Your task to perform on an android device: toggle data saver in the chrome app Image 0: 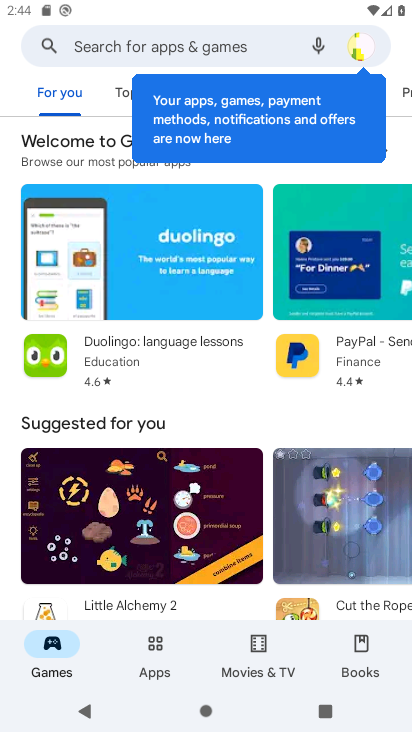
Step 0: press home button
Your task to perform on an android device: toggle data saver in the chrome app Image 1: 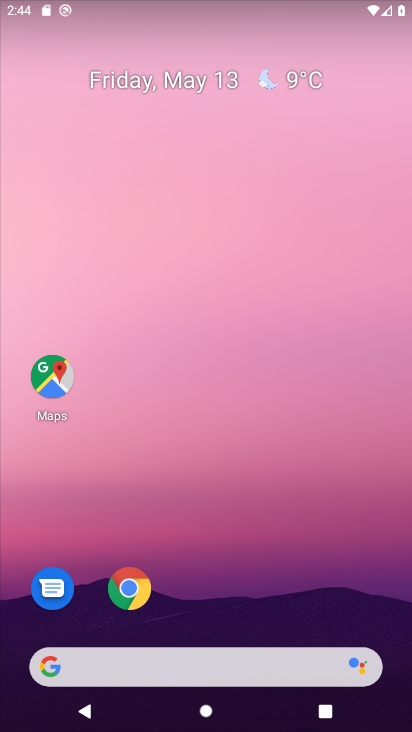
Step 1: click (145, 601)
Your task to perform on an android device: toggle data saver in the chrome app Image 2: 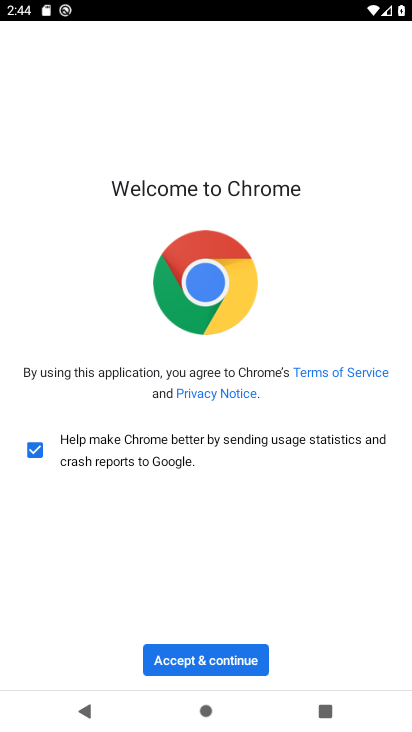
Step 2: click (158, 661)
Your task to perform on an android device: toggle data saver in the chrome app Image 3: 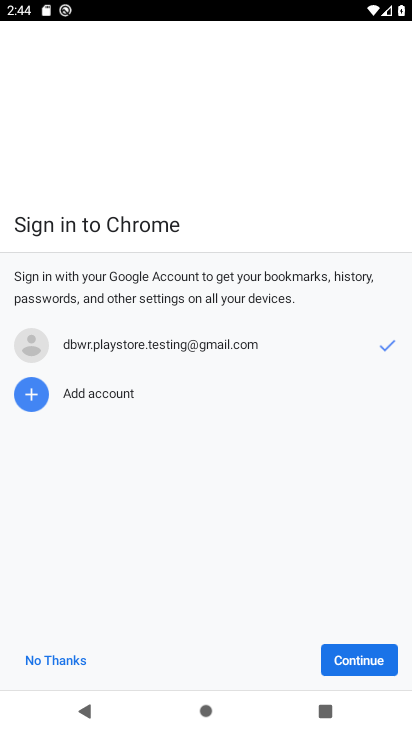
Step 3: click (349, 658)
Your task to perform on an android device: toggle data saver in the chrome app Image 4: 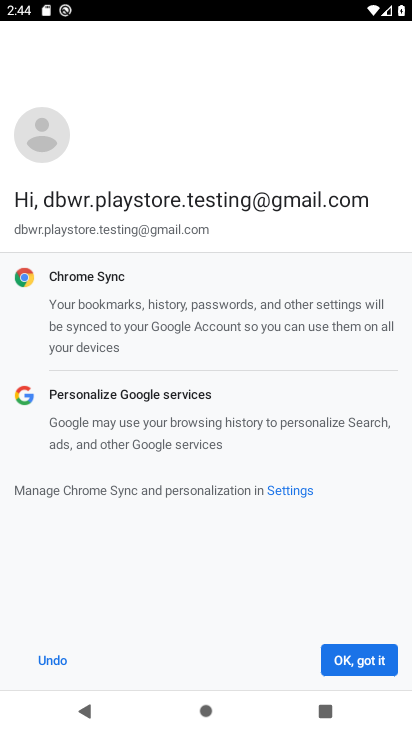
Step 4: click (349, 658)
Your task to perform on an android device: toggle data saver in the chrome app Image 5: 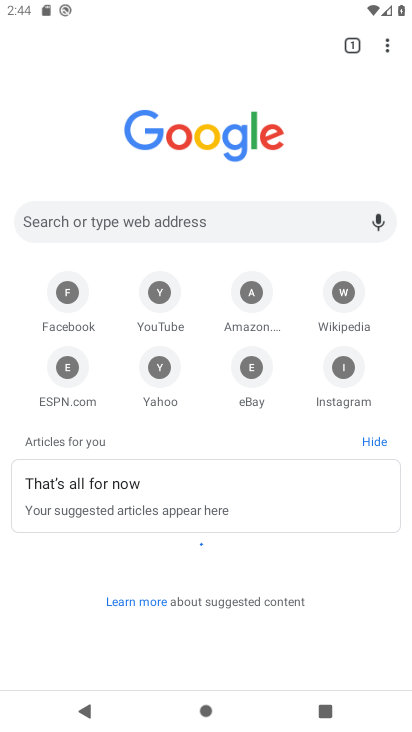
Step 5: click (349, 658)
Your task to perform on an android device: toggle data saver in the chrome app Image 6: 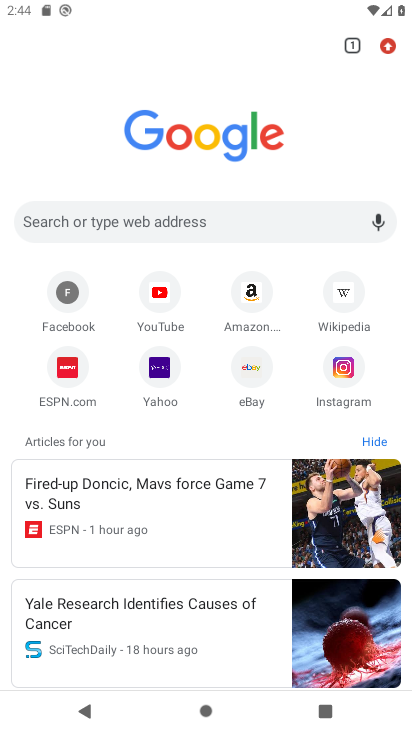
Step 6: click (388, 50)
Your task to perform on an android device: toggle data saver in the chrome app Image 7: 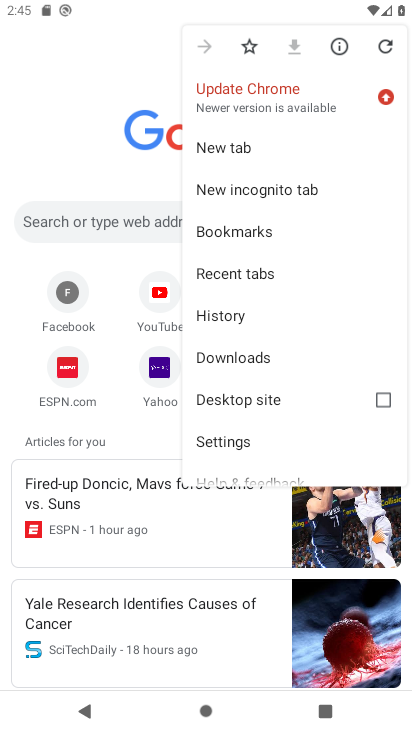
Step 7: click (250, 443)
Your task to perform on an android device: toggle data saver in the chrome app Image 8: 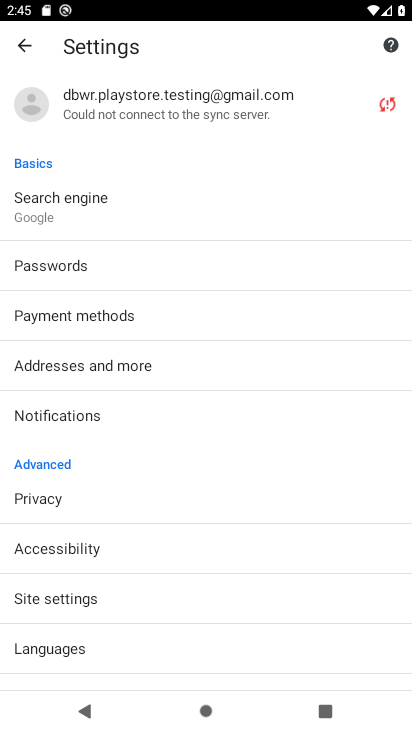
Step 8: drag from (97, 629) to (93, 335)
Your task to perform on an android device: toggle data saver in the chrome app Image 9: 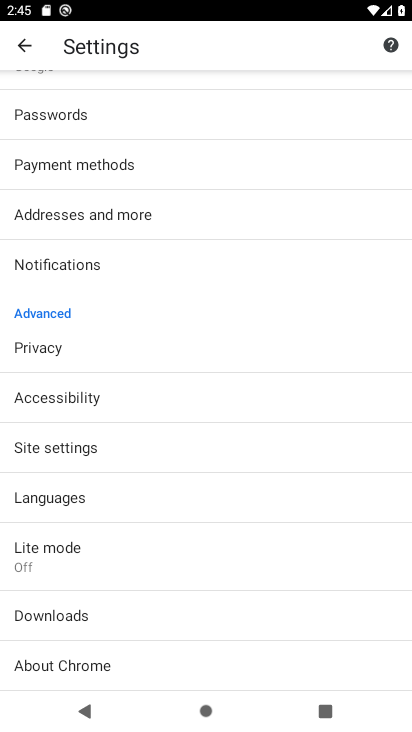
Step 9: click (132, 541)
Your task to perform on an android device: toggle data saver in the chrome app Image 10: 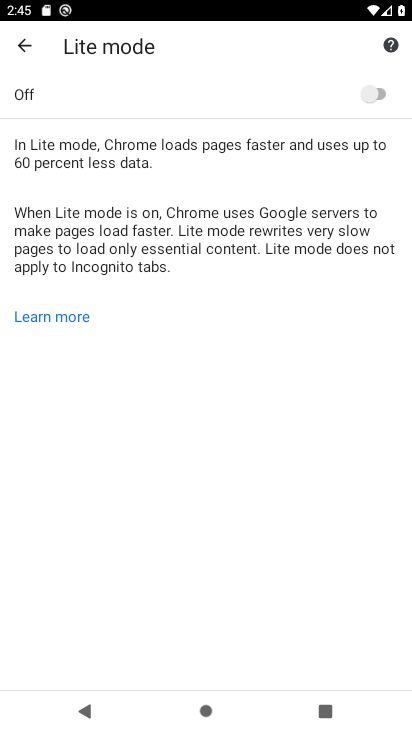
Step 10: click (366, 86)
Your task to perform on an android device: toggle data saver in the chrome app Image 11: 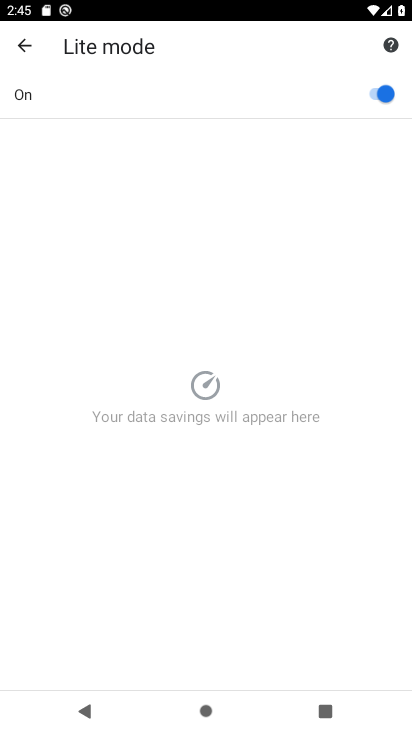
Step 11: task complete